Your task to perform on an android device: find photos in the google photos app Image 0: 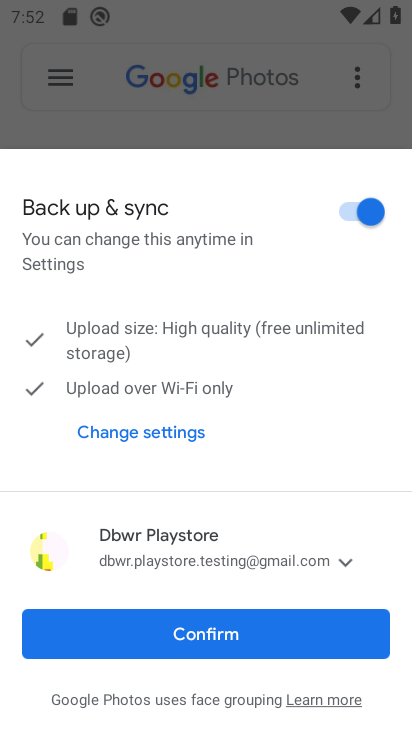
Step 0: click (184, 647)
Your task to perform on an android device: find photos in the google photos app Image 1: 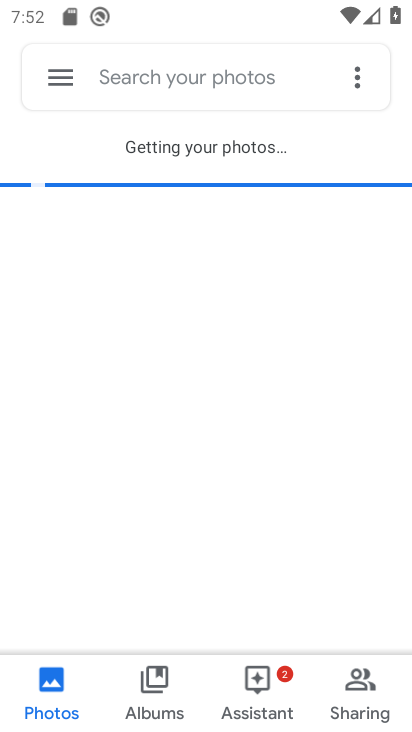
Step 1: click (53, 686)
Your task to perform on an android device: find photos in the google photos app Image 2: 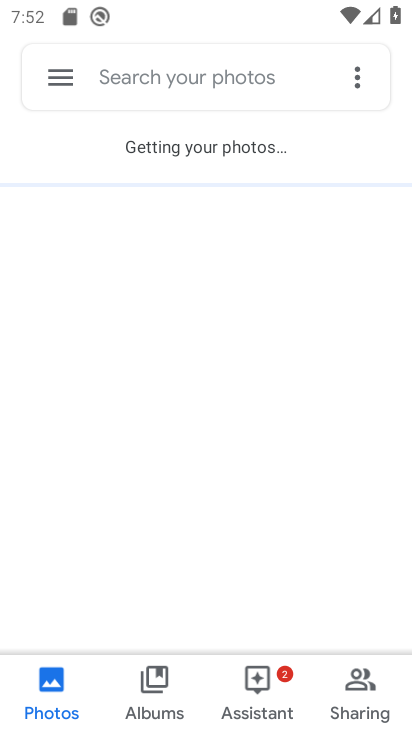
Step 2: click (53, 683)
Your task to perform on an android device: find photos in the google photos app Image 3: 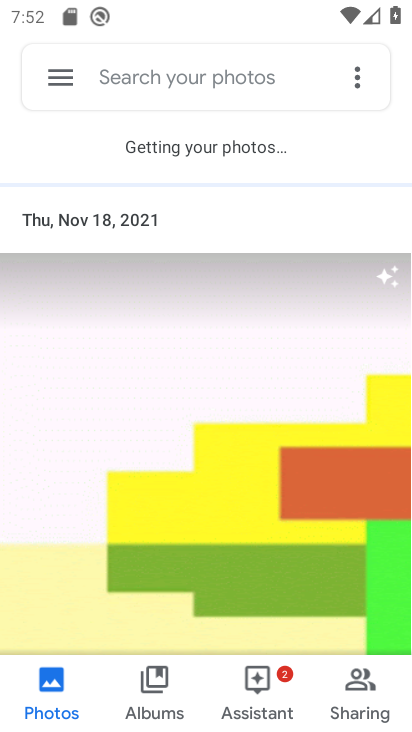
Step 3: task complete